Your task to perform on an android device: Search for sushi restaurants on Maps Image 0: 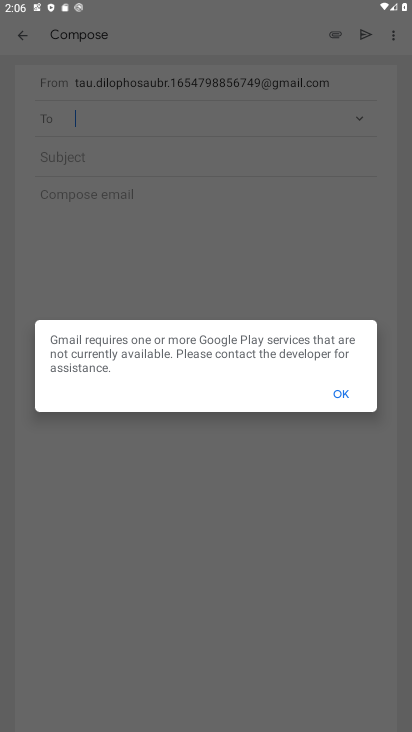
Step 0: press home button
Your task to perform on an android device: Search for sushi restaurants on Maps Image 1: 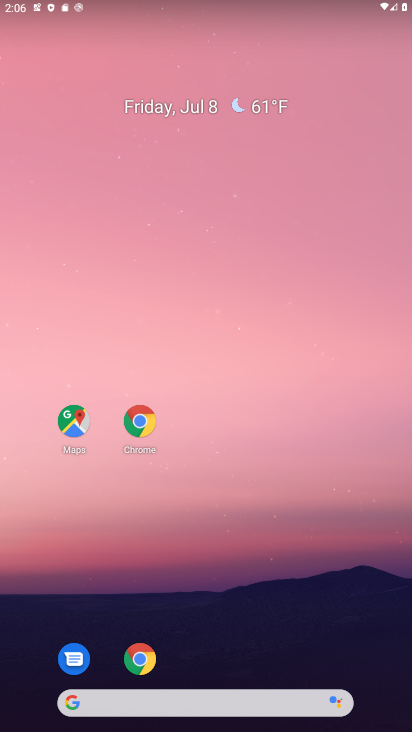
Step 1: click (75, 421)
Your task to perform on an android device: Search for sushi restaurants on Maps Image 2: 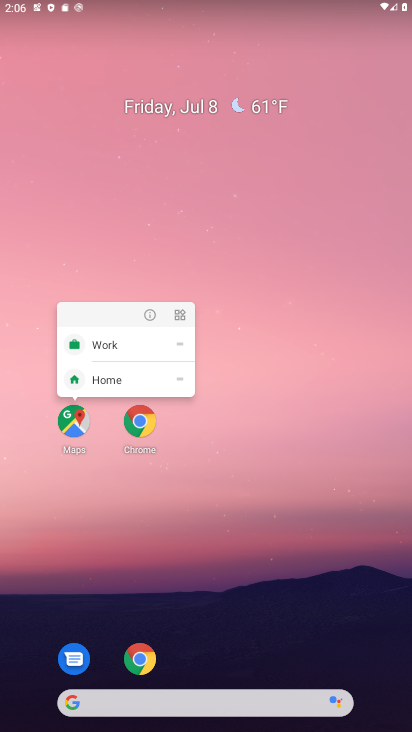
Step 2: click (65, 422)
Your task to perform on an android device: Search for sushi restaurants on Maps Image 3: 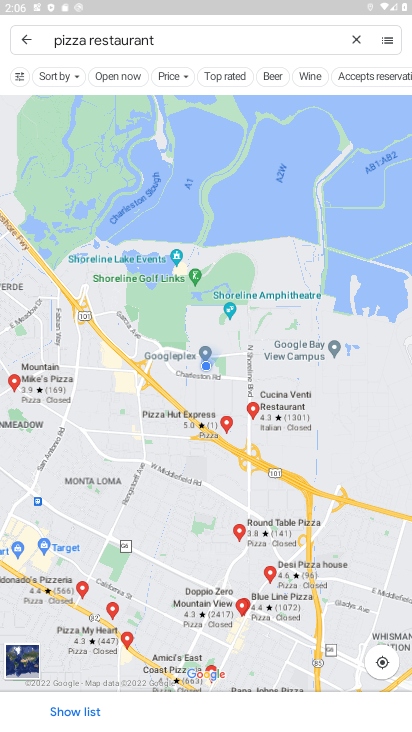
Step 3: click (349, 35)
Your task to perform on an android device: Search for sushi restaurants on Maps Image 4: 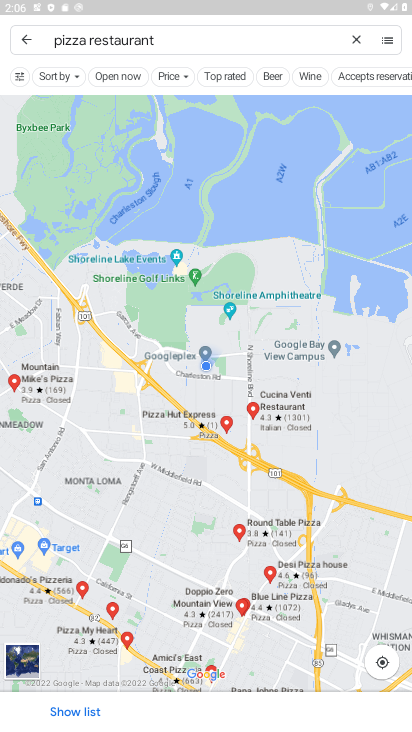
Step 4: click (217, 35)
Your task to perform on an android device: Search for sushi restaurants on Maps Image 5: 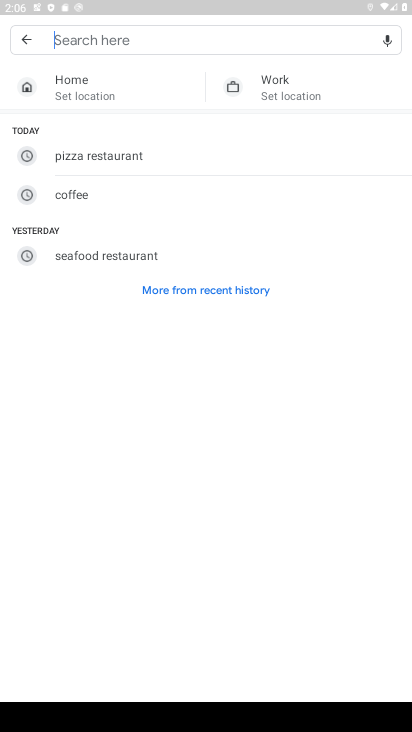
Step 5: type "sushi restaurants"
Your task to perform on an android device: Search for sushi restaurants on Maps Image 6: 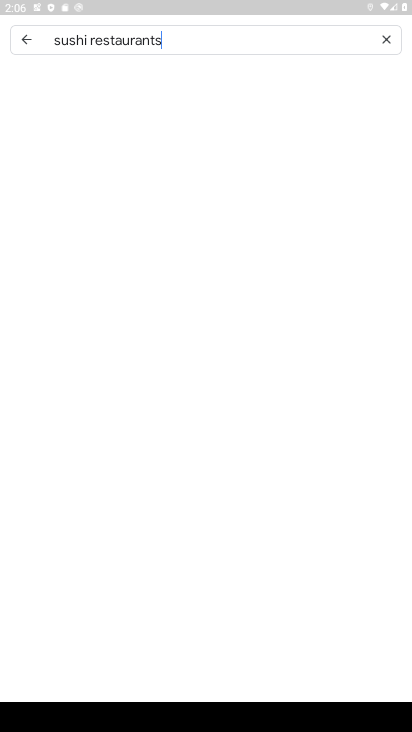
Step 6: type ""
Your task to perform on an android device: Search for sushi restaurants on Maps Image 7: 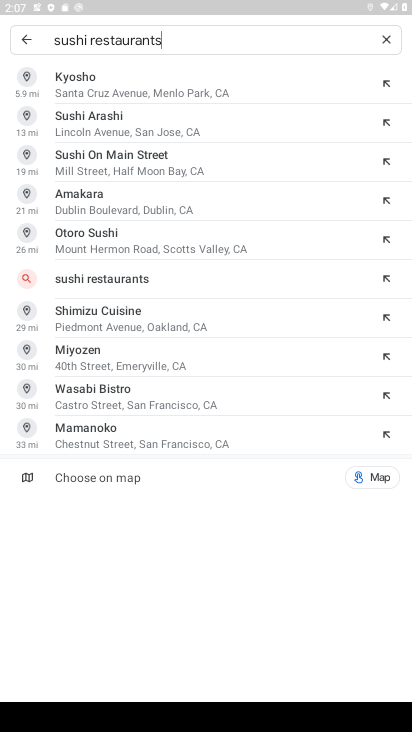
Step 7: click (118, 473)
Your task to perform on an android device: Search for sushi restaurants on Maps Image 8: 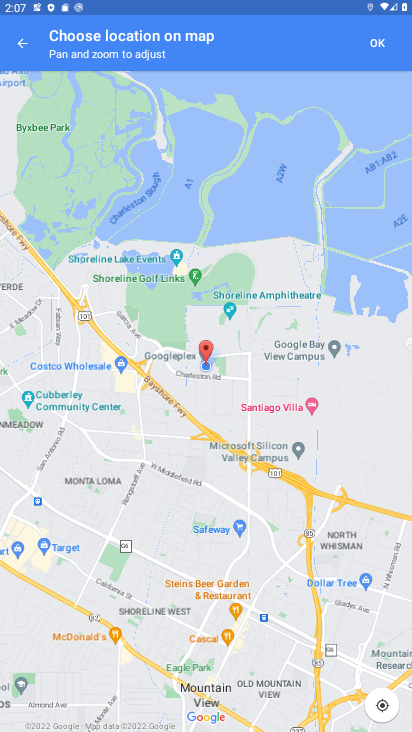
Step 8: task complete